Your task to perform on an android device: search for starred emails in the gmail app Image 0: 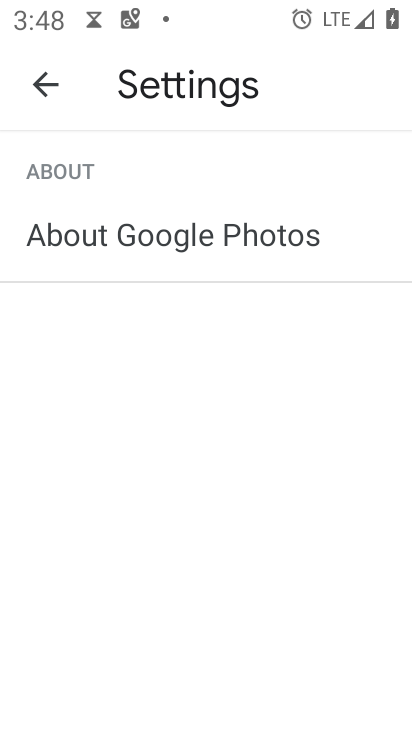
Step 0: press home button
Your task to perform on an android device: search for starred emails in the gmail app Image 1: 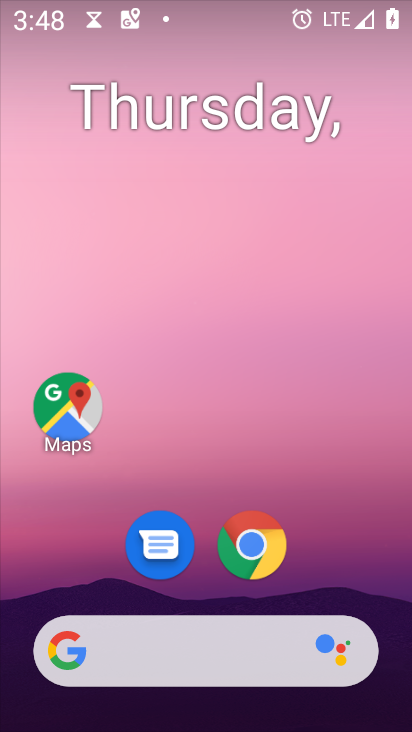
Step 1: drag from (362, 508) to (388, 113)
Your task to perform on an android device: search for starred emails in the gmail app Image 2: 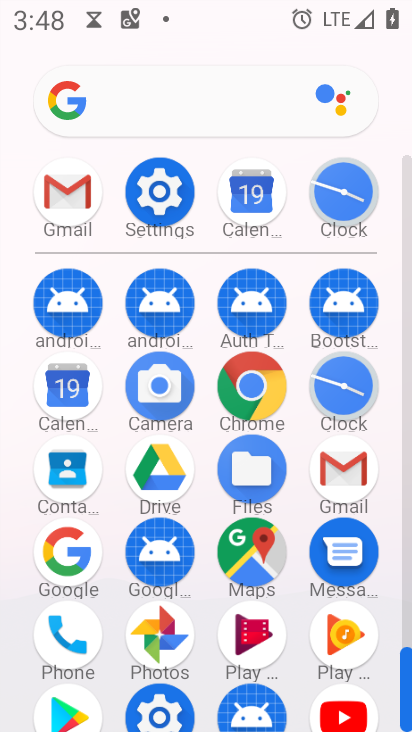
Step 2: click (73, 190)
Your task to perform on an android device: search for starred emails in the gmail app Image 3: 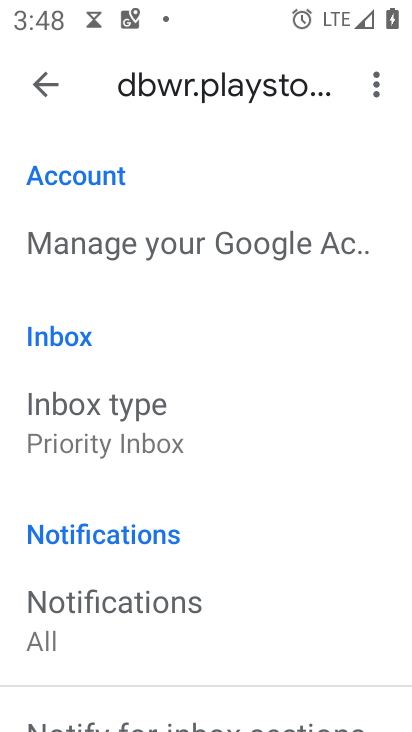
Step 3: click (39, 100)
Your task to perform on an android device: search for starred emails in the gmail app Image 4: 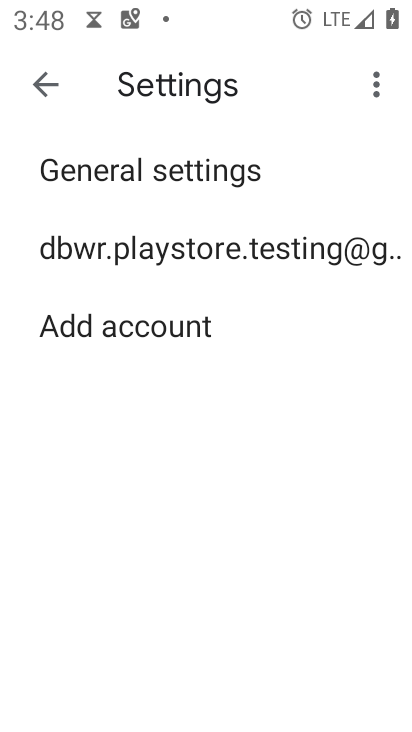
Step 4: click (40, 100)
Your task to perform on an android device: search for starred emails in the gmail app Image 5: 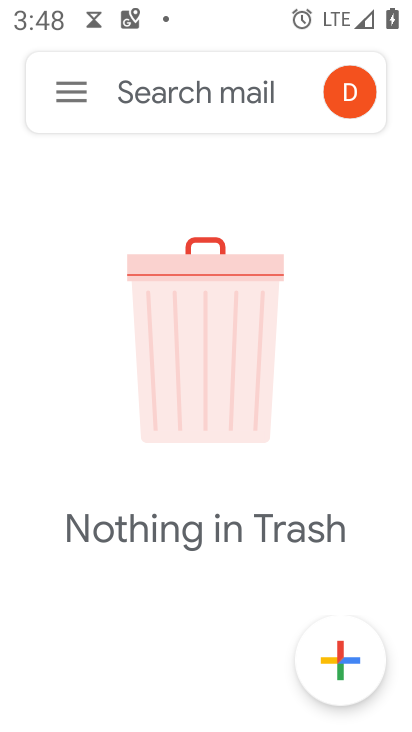
Step 5: click (48, 96)
Your task to perform on an android device: search for starred emails in the gmail app Image 6: 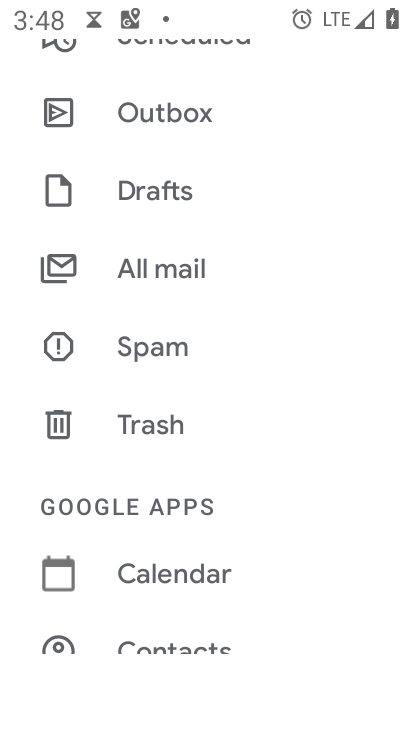
Step 6: drag from (235, 337) to (292, 620)
Your task to perform on an android device: search for starred emails in the gmail app Image 7: 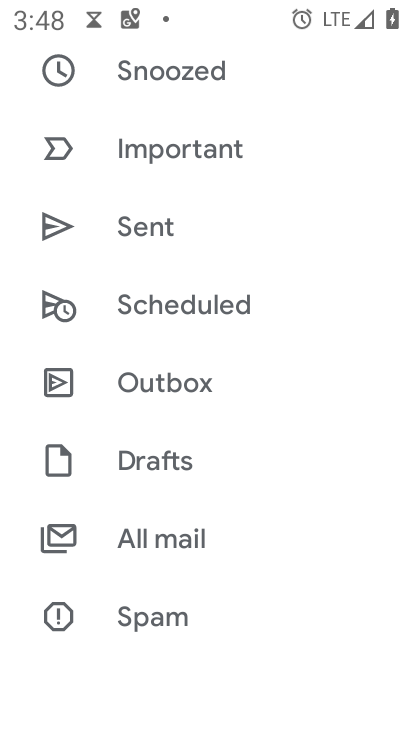
Step 7: drag from (224, 293) to (261, 539)
Your task to perform on an android device: search for starred emails in the gmail app Image 8: 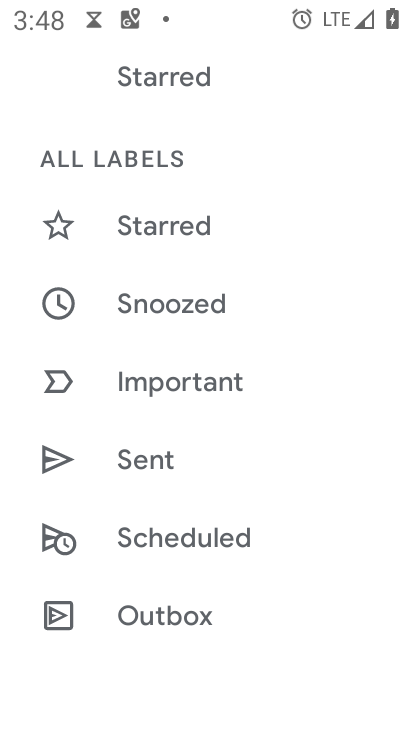
Step 8: click (142, 244)
Your task to perform on an android device: search for starred emails in the gmail app Image 9: 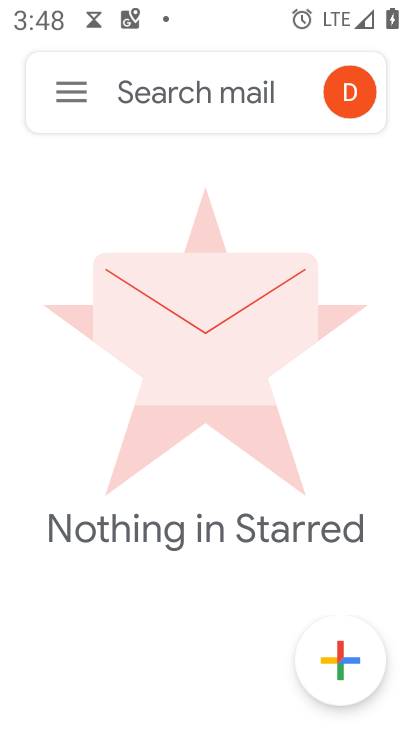
Step 9: task complete